Your task to perform on an android device: Show me recent news Image 0: 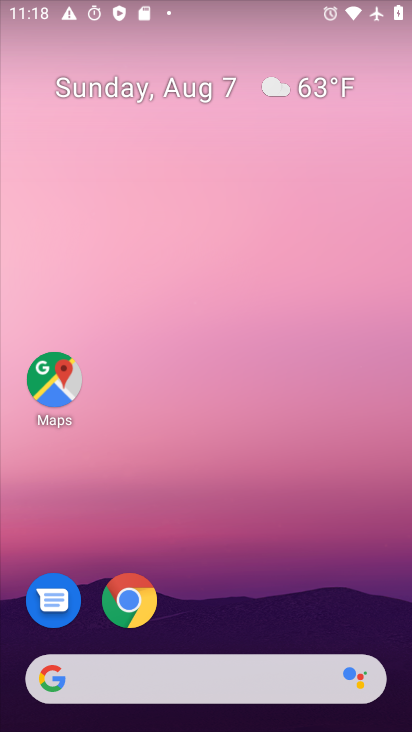
Step 0: drag from (145, 502) to (223, 108)
Your task to perform on an android device: Show me recent news Image 1: 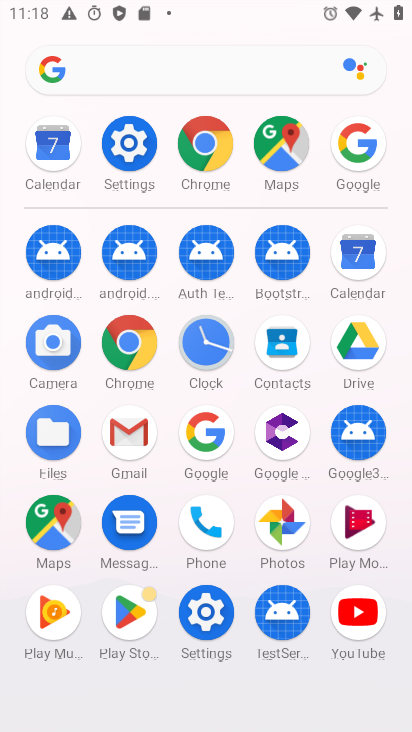
Step 1: click (206, 456)
Your task to perform on an android device: Show me recent news Image 2: 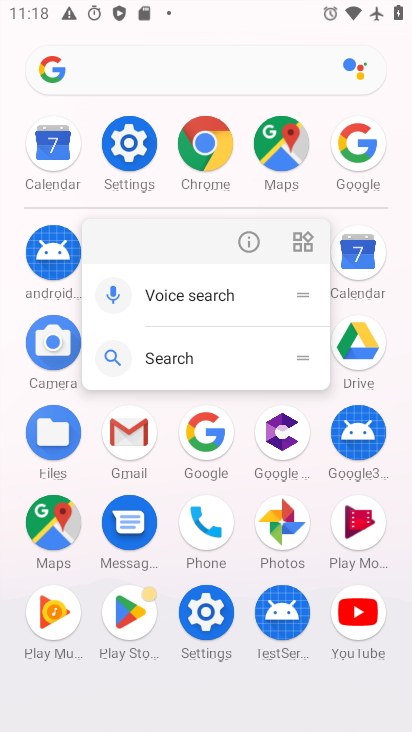
Step 2: click (206, 456)
Your task to perform on an android device: Show me recent news Image 3: 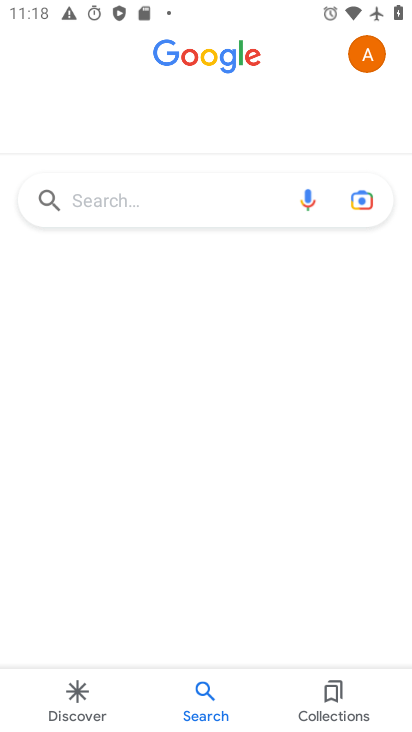
Step 3: click (219, 207)
Your task to perform on an android device: Show me recent news Image 4: 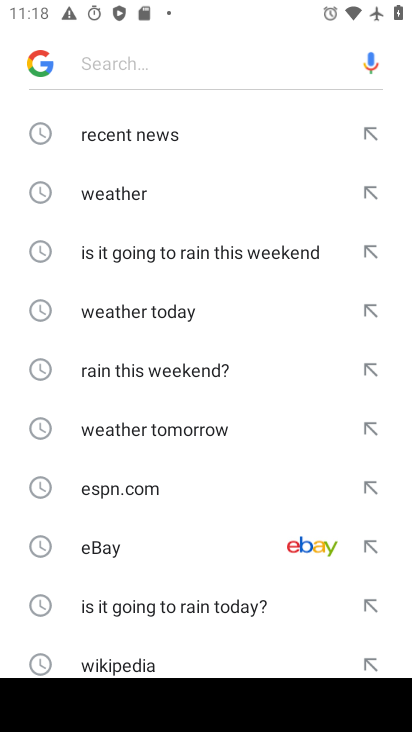
Step 4: click (207, 125)
Your task to perform on an android device: Show me recent news Image 5: 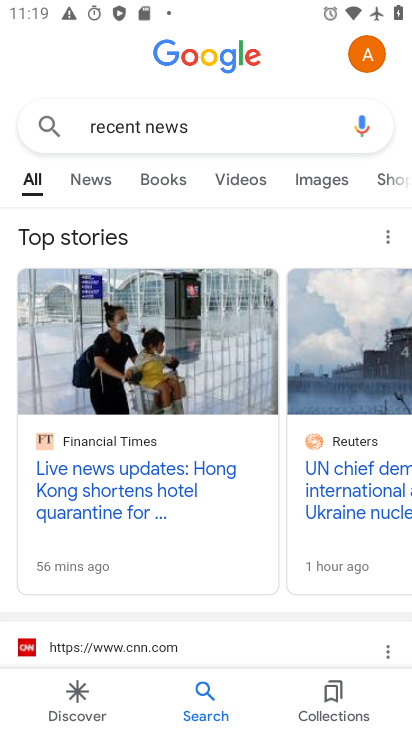
Step 5: click (105, 182)
Your task to perform on an android device: Show me recent news Image 6: 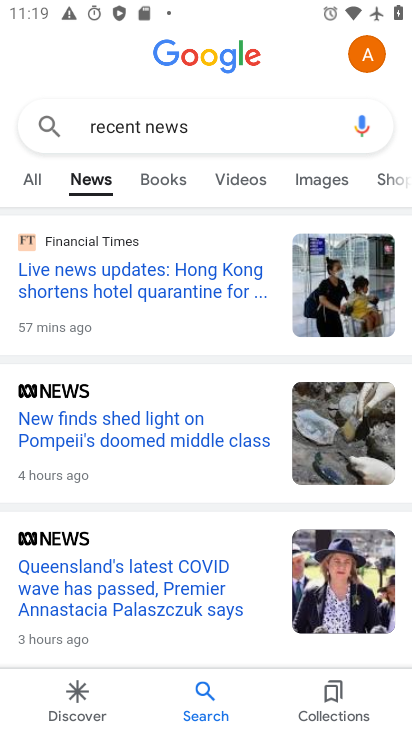
Step 6: task complete